Your task to perform on an android device: toggle airplane mode Image 0: 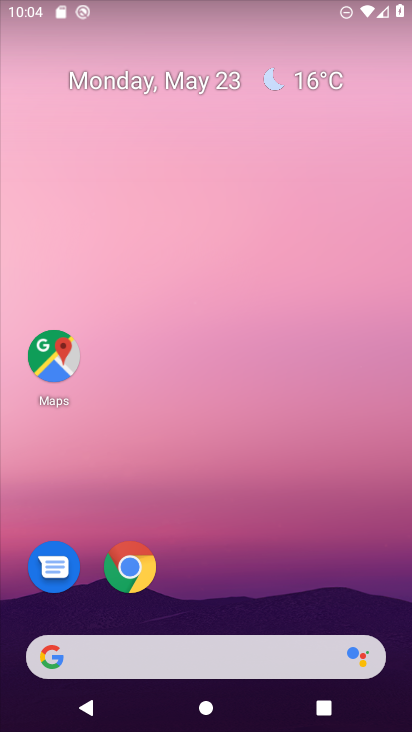
Step 0: click (297, 101)
Your task to perform on an android device: toggle airplane mode Image 1: 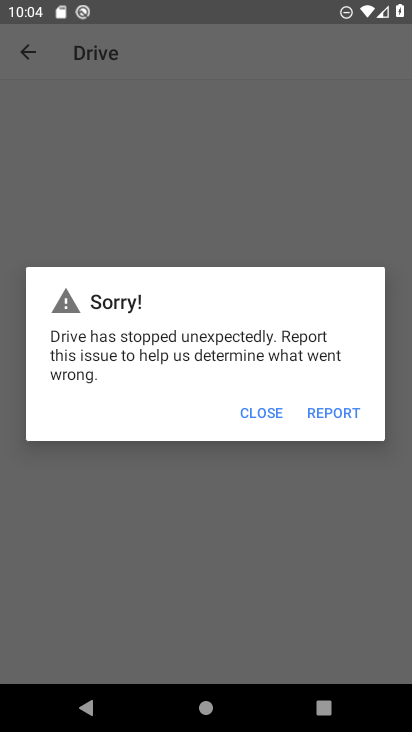
Step 1: press home button
Your task to perform on an android device: toggle airplane mode Image 2: 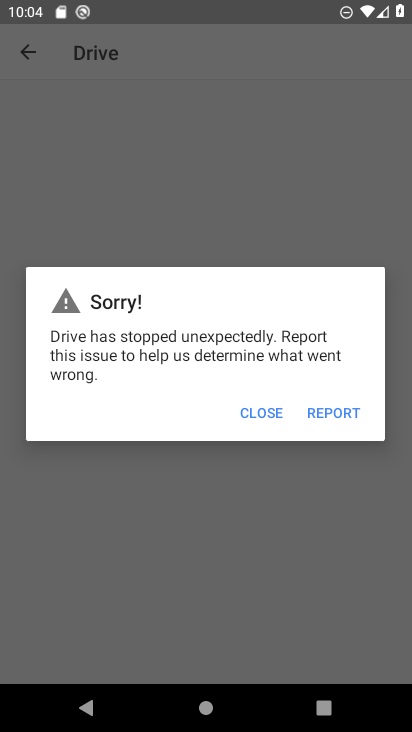
Step 2: press home button
Your task to perform on an android device: toggle airplane mode Image 3: 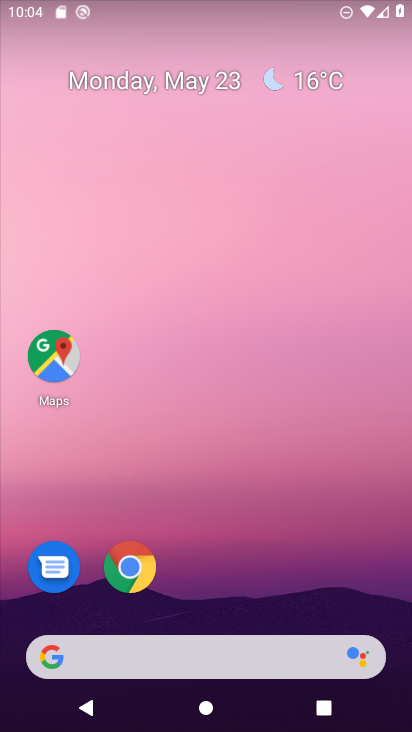
Step 3: drag from (281, 118) to (295, 13)
Your task to perform on an android device: toggle airplane mode Image 4: 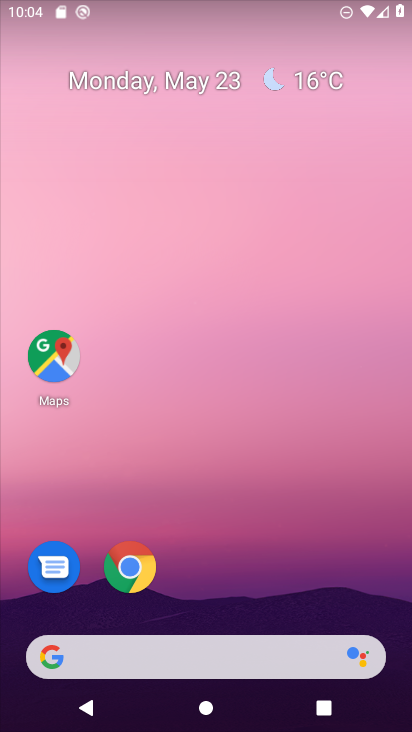
Step 4: drag from (217, 579) to (295, 38)
Your task to perform on an android device: toggle airplane mode Image 5: 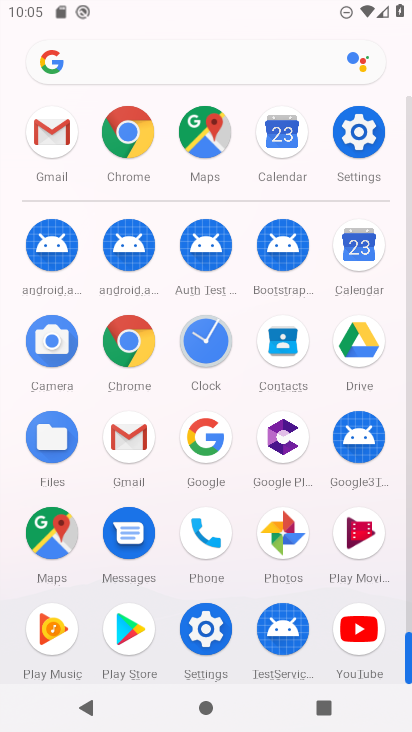
Step 5: click (357, 132)
Your task to perform on an android device: toggle airplane mode Image 6: 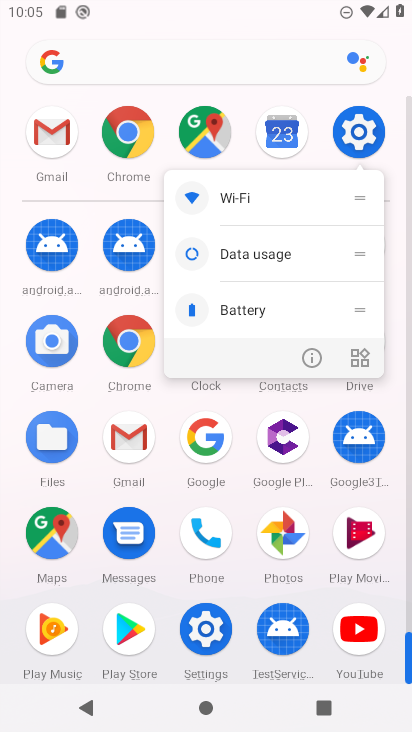
Step 6: click (305, 353)
Your task to perform on an android device: toggle airplane mode Image 7: 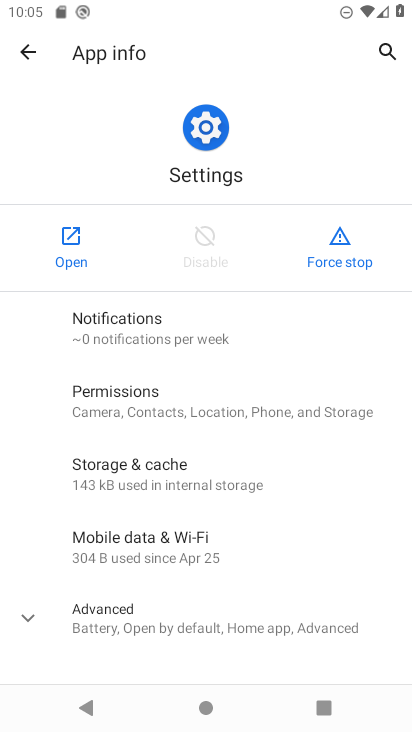
Step 7: click (70, 236)
Your task to perform on an android device: toggle airplane mode Image 8: 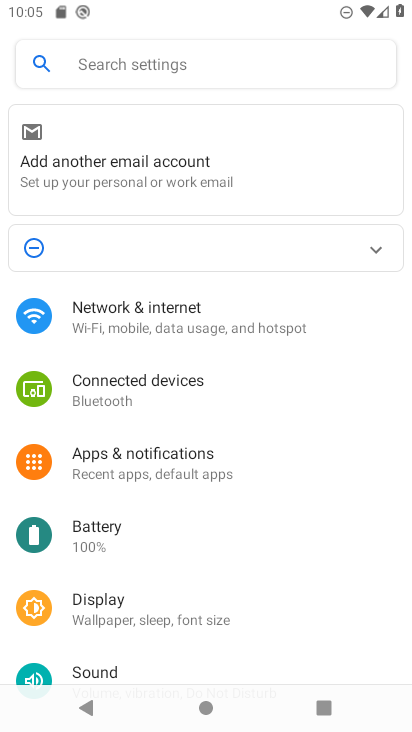
Step 8: click (204, 321)
Your task to perform on an android device: toggle airplane mode Image 9: 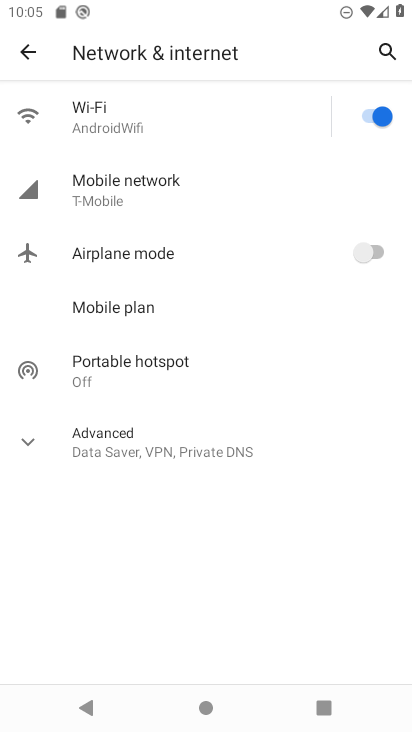
Step 9: click (226, 255)
Your task to perform on an android device: toggle airplane mode Image 10: 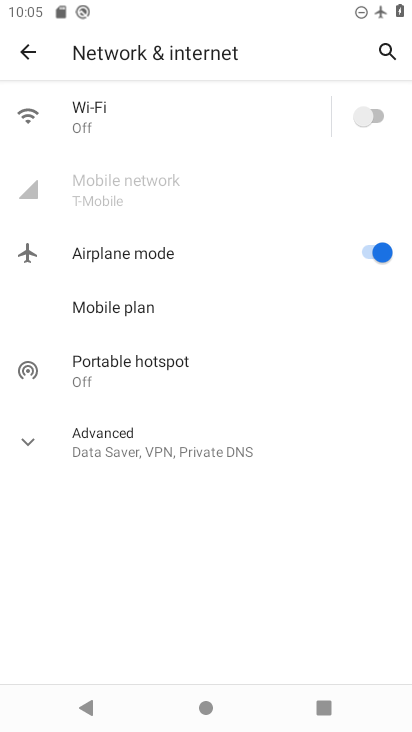
Step 10: task complete